Your task to perform on an android device: Go to Yahoo.com Image 0: 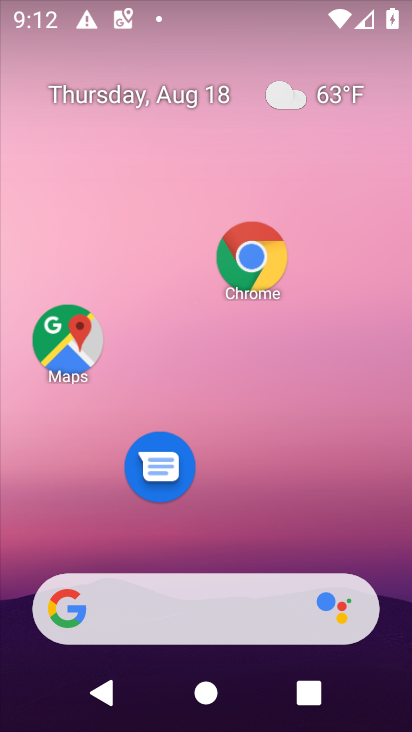
Step 0: click (249, 626)
Your task to perform on an android device: Go to Yahoo.com Image 1: 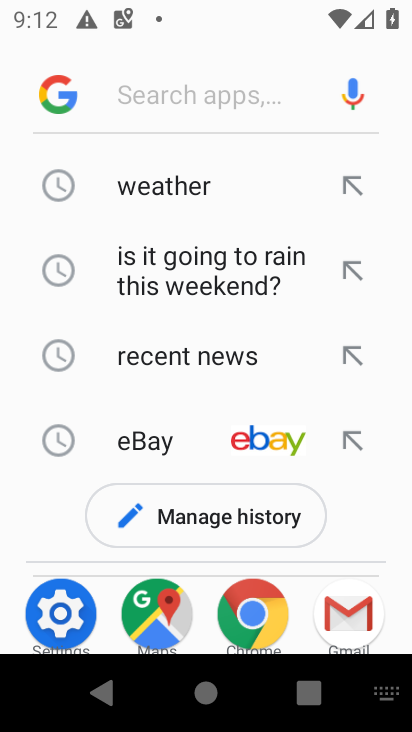
Step 1: type " Yahoo.com"
Your task to perform on an android device: Go to Yahoo.com Image 2: 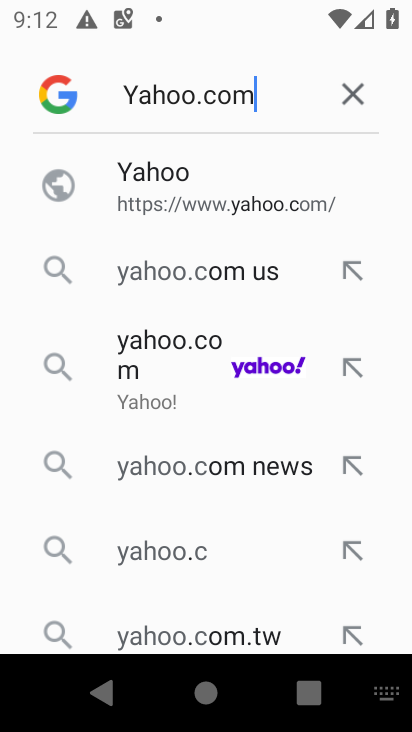
Step 2: type ""
Your task to perform on an android device: Go to Yahoo.com Image 3: 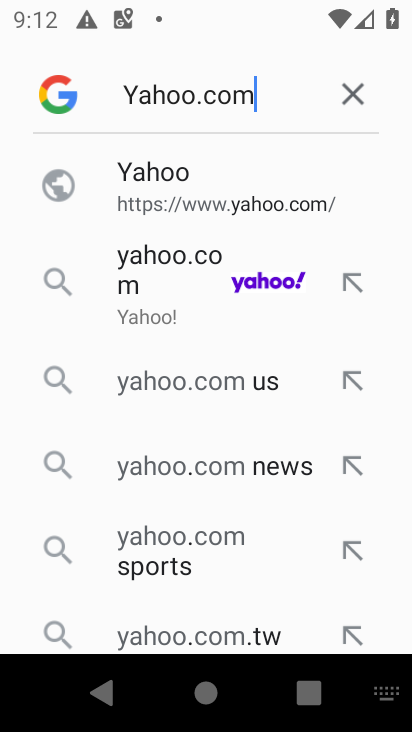
Step 3: press enter
Your task to perform on an android device: Go to Yahoo.com Image 4: 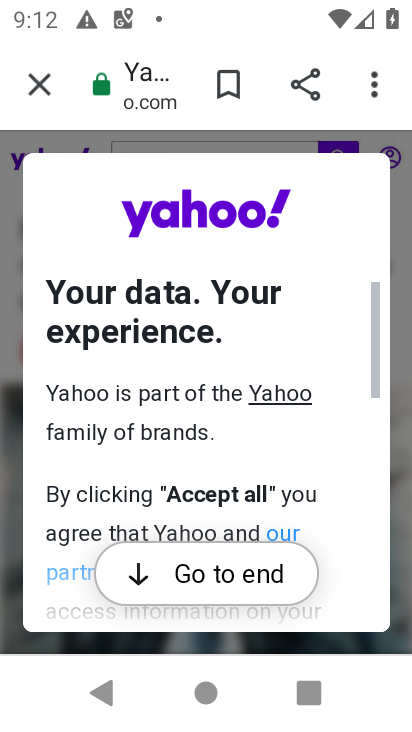
Step 4: task complete